Your task to perform on an android device: turn off sleep mode Image 0: 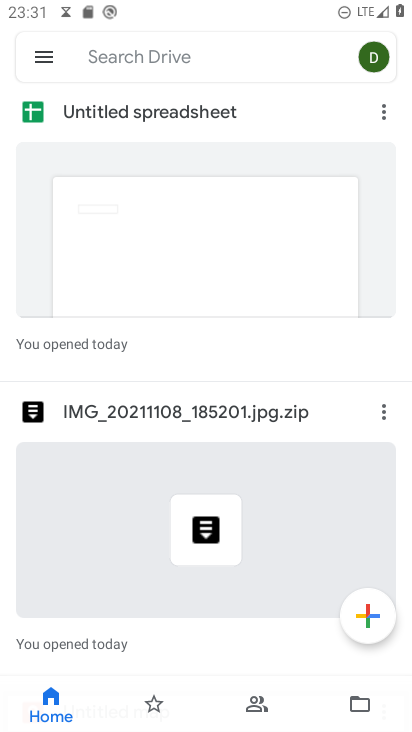
Step 0: press home button
Your task to perform on an android device: turn off sleep mode Image 1: 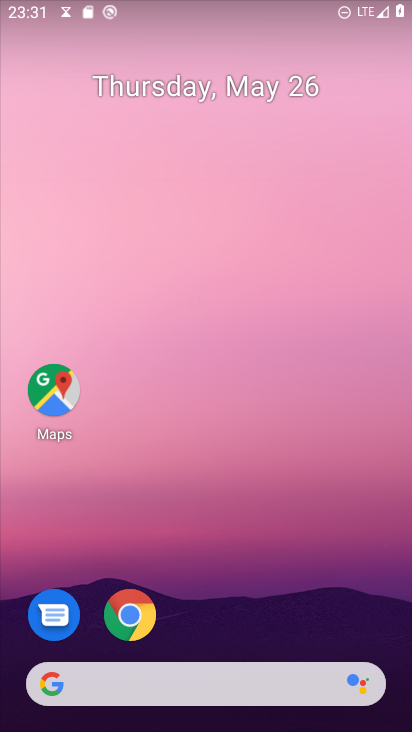
Step 1: drag from (228, 614) to (244, 372)
Your task to perform on an android device: turn off sleep mode Image 2: 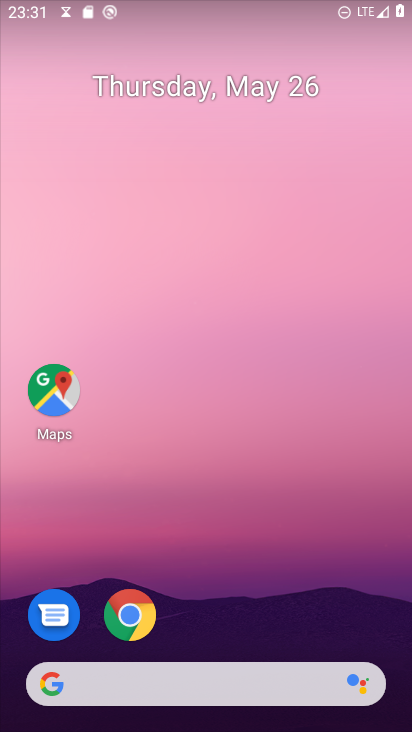
Step 2: drag from (191, 628) to (230, 223)
Your task to perform on an android device: turn off sleep mode Image 3: 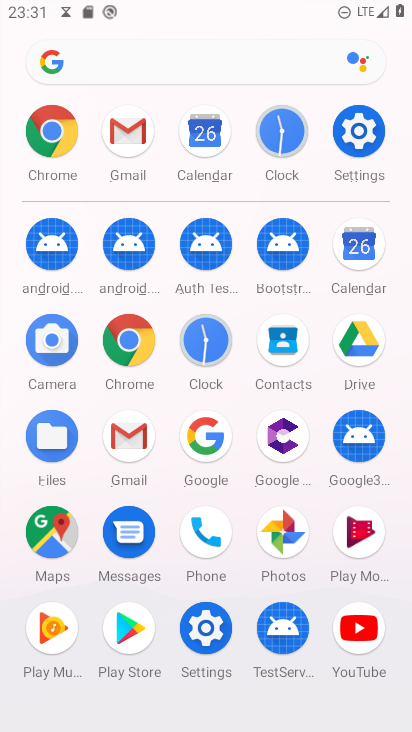
Step 3: click (61, 122)
Your task to perform on an android device: turn off sleep mode Image 4: 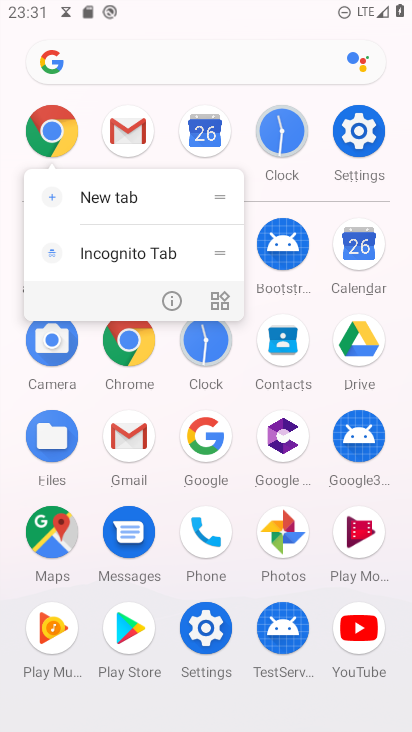
Step 4: click (364, 133)
Your task to perform on an android device: turn off sleep mode Image 5: 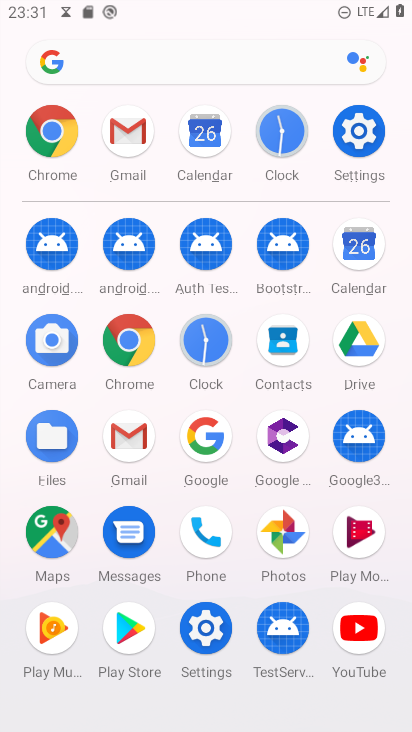
Step 5: click (356, 118)
Your task to perform on an android device: turn off sleep mode Image 6: 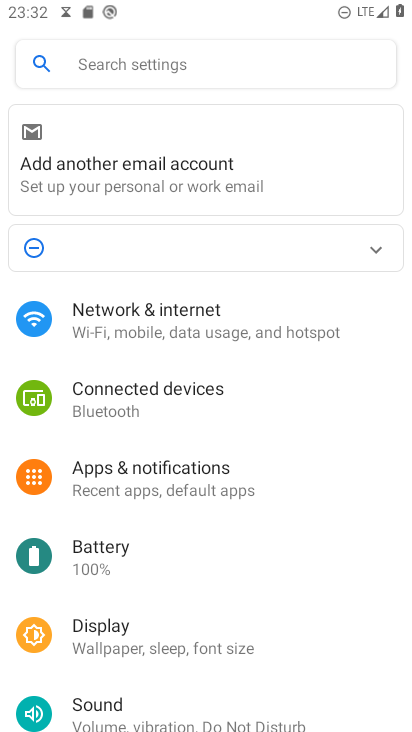
Step 6: task complete